Your task to perform on an android device: Search for seafood restaurants on Google Maps Image 0: 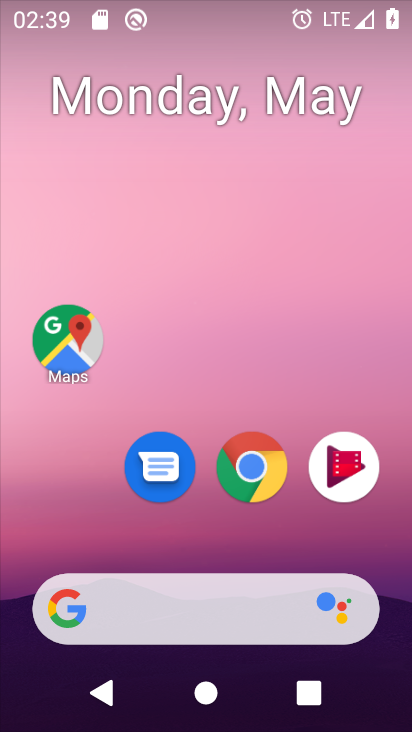
Step 0: drag from (245, 573) to (245, 255)
Your task to perform on an android device: Search for seafood restaurants on Google Maps Image 1: 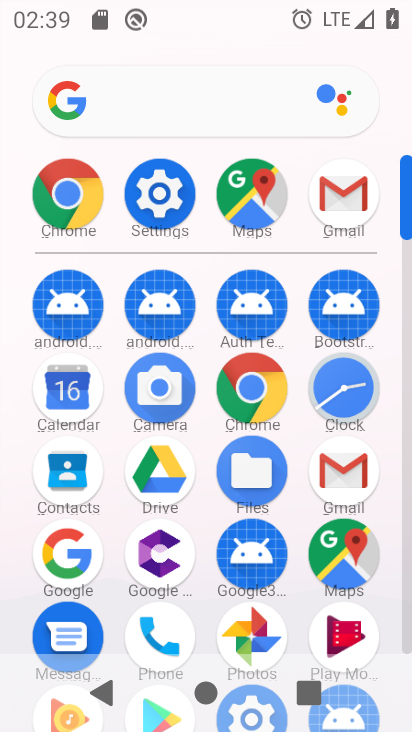
Step 1: click (320, 545)
Your task to perform on an android device: Search for seafood restaurants on Google Maps Image 2: 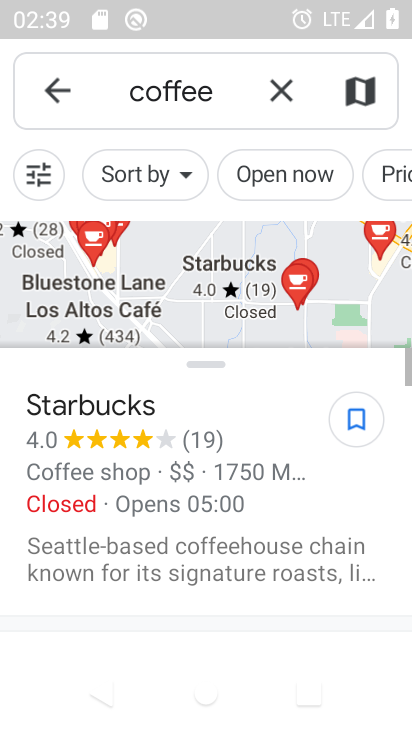
Step 2: click (267, 82)
Your task to perform on an android device: Search for seafood restaurants on Google Maps Image 3: 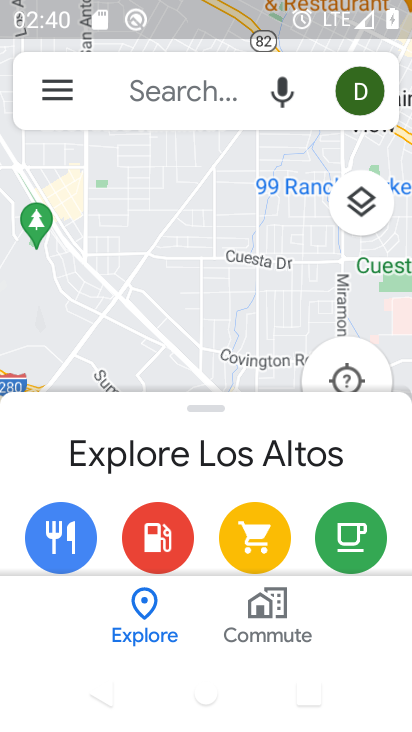
Step 3: click (207, 87)
Your task to perform on an android device: Search for seafood restaurants on Google Maps Image 4: 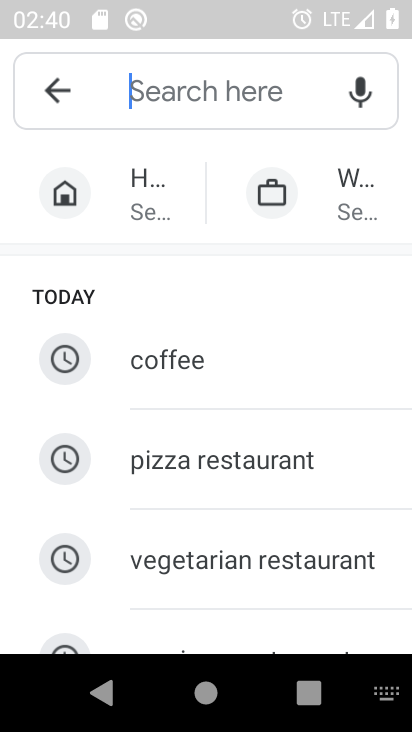
Step 4: drag from (192, 548) to (233, 305)
Your task to perform on an android device: Search for seafood restaurants on Google Maps Image 5: 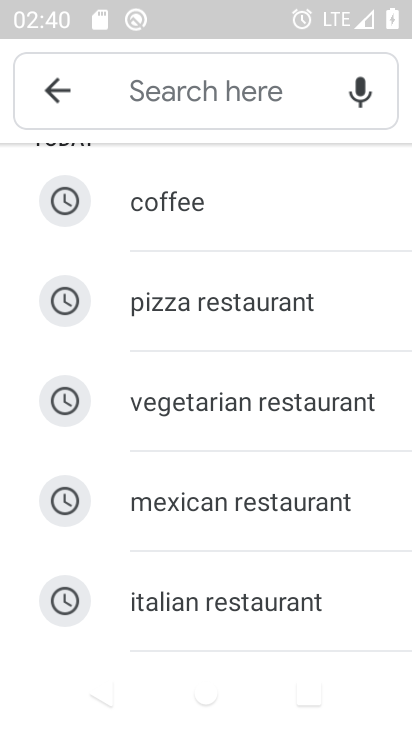
Step 5: drag from (216, 554) to (276, 250)
Your task to perform on an android device: Search for seafood restaurants on Google Maps Image 6: 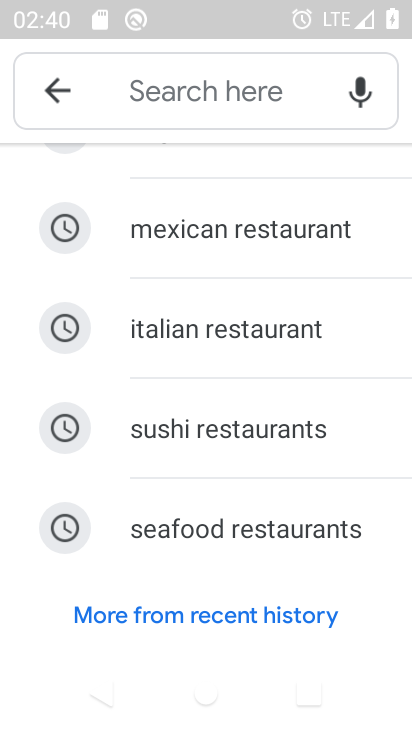
Step 6: click (202, 537)
Your task to perform on an android device: Search for seafood restaurants on Google Maps Image 7: 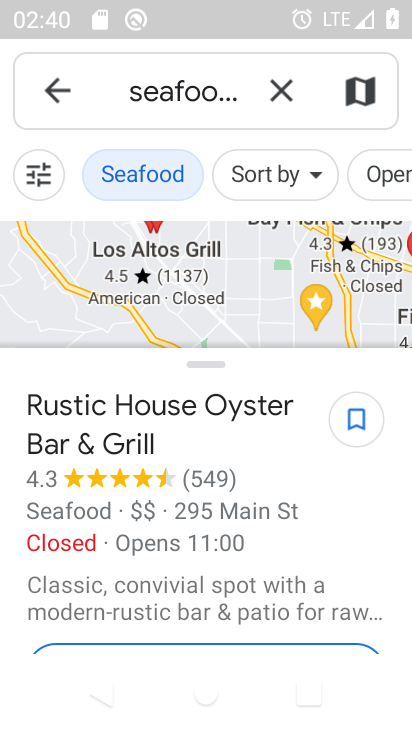
Step 7: task complete